Your task to perform on an android device: Open calendar and show me the fourth week of next month Image 0: 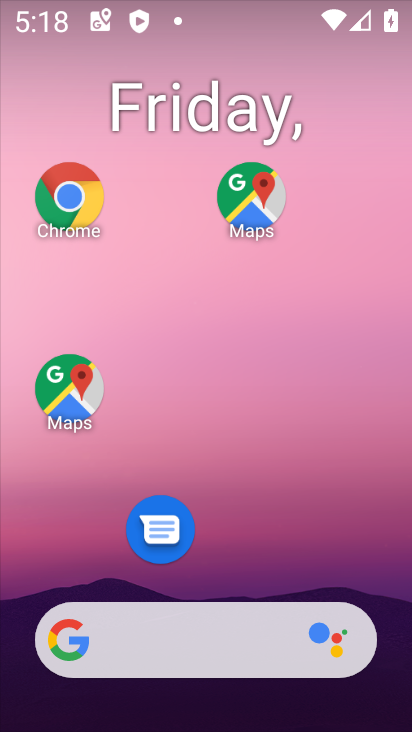
Step 0: drag from (238, 578) to (236, 107)
Your task to perform on an android device: Open calendar and show me the fourth week of next month Image 1: 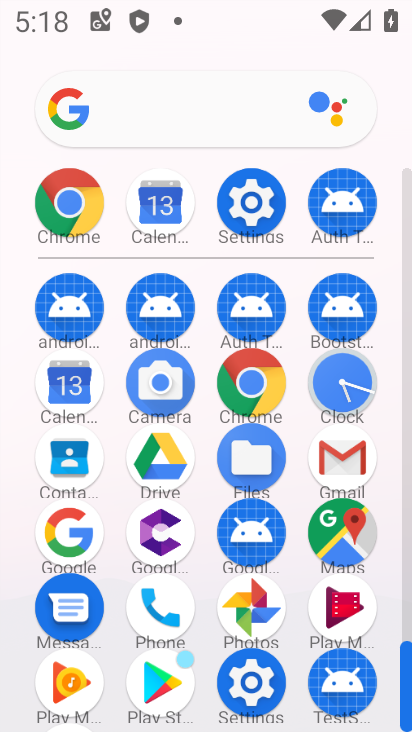
Step 1: click (58, 386)
Your task to perform on an android device: Open calendar and show me the fourth week of next month Image 2: 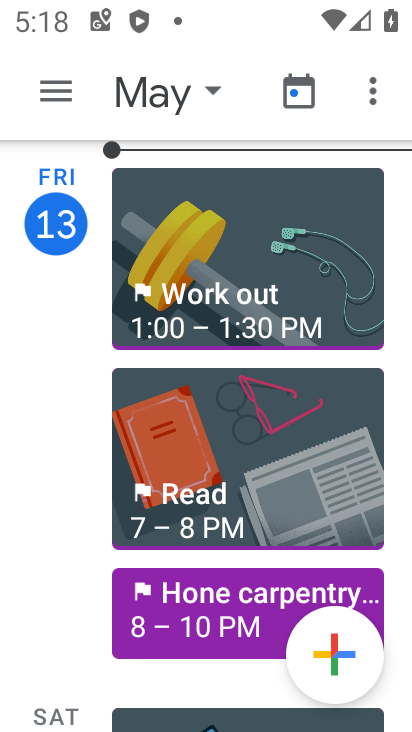
Step 2: click (56, 90)
Your task to perform on an android device: Open calendar and show me the fourth week of next month Image 3: 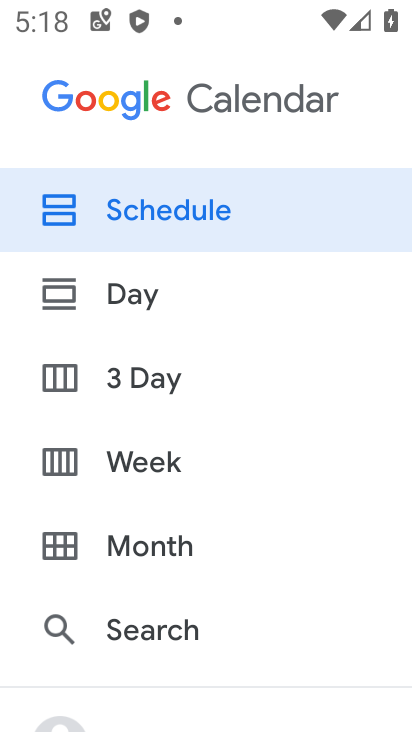
Step 3: click (147, 469)
Your task to perform on an android device: Open calendar and show me the fourth week of next month Image 4: 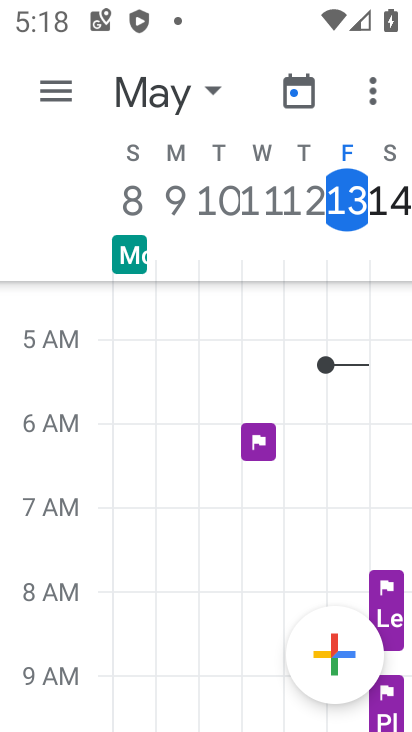
Step 4: click (158, 110)
Your task to perform on an android device: Open calendar and show me the fourth week of next month Image 5: 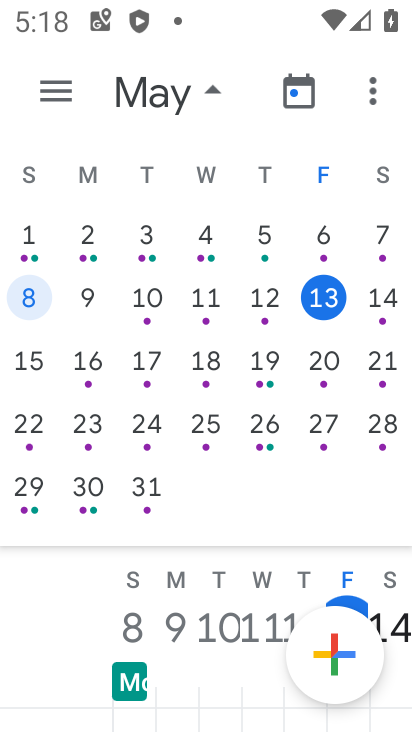
Step 5: drag from (341, 381) to (6, 377)
Your task to perform on an android device: Open calendar and show me the fourth week of next month Image 6: 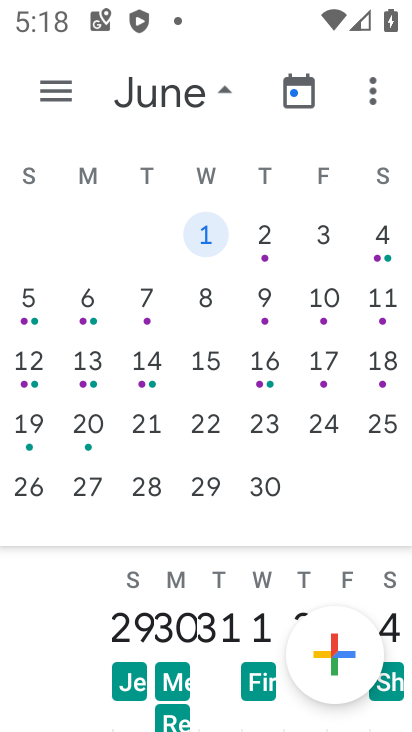
Step 6: click (33, 427)
Your task to perform on an android device: Open calendar and show me the fourth week of next month Image 7: 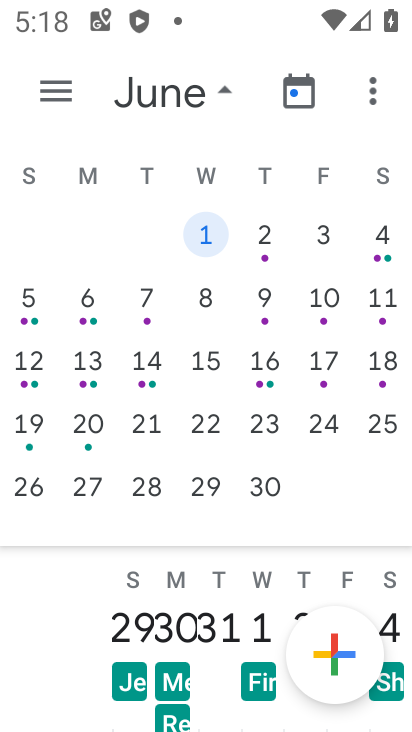
Step 7: click (35, 421)
Your task to perform on an android device: Open calendar and show me the fourth week of next month Image 8: 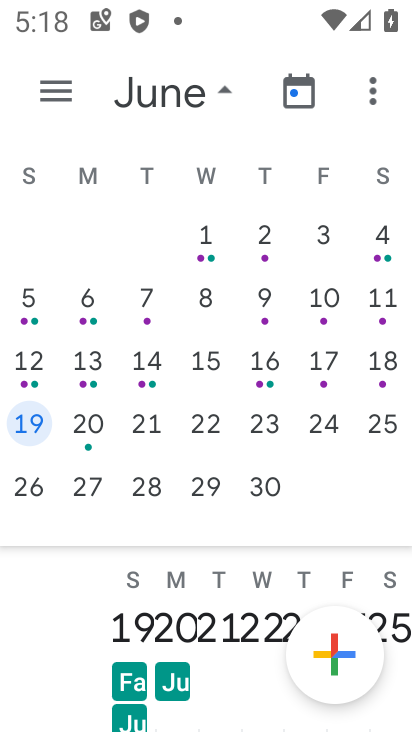
Step 8: task complete